Your task to perform on an android device: When is my next appointment? Image 0: 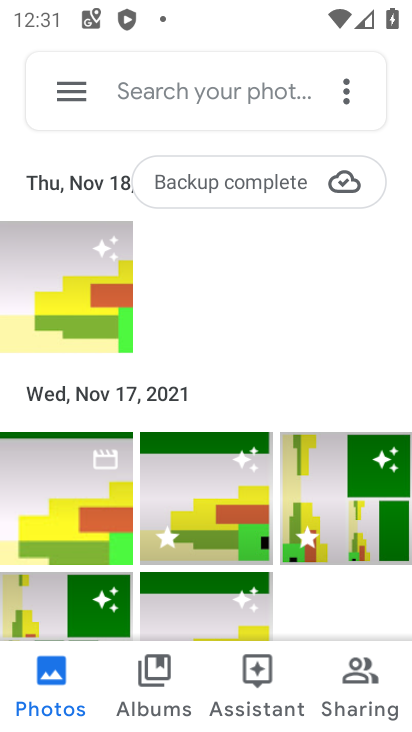
Step 0: press home button
Your task to perform on an android device: When is my next appointment? Image 1: 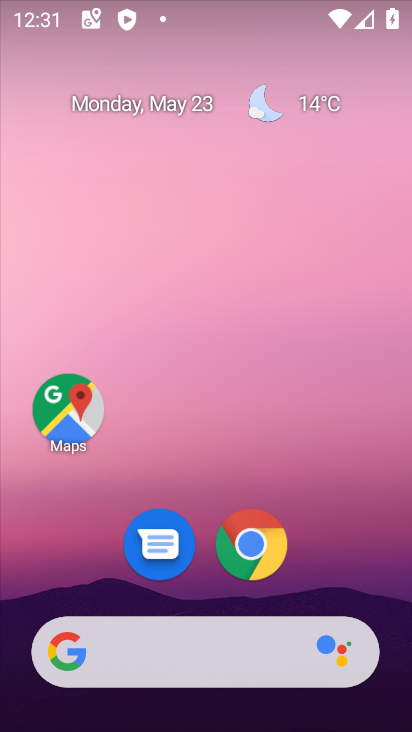
Step 1: drag from (309, 555) to (291, 110)
Your task to perform on an android device: When is my next appointment? Image 2: 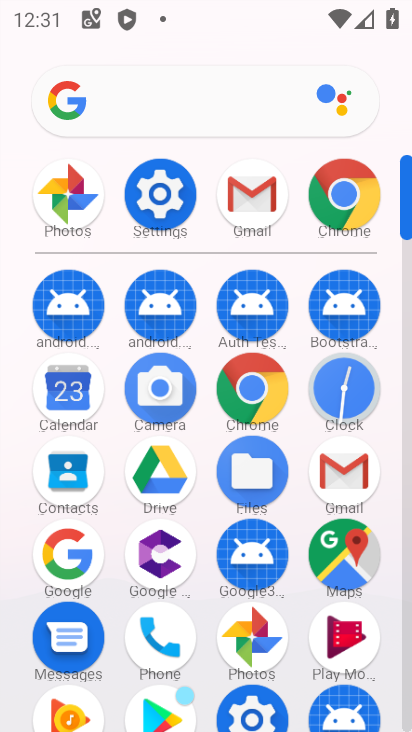
Step 2: click (62, 405)
Your task to perform on an android device: When is my next appointment? Image 3: 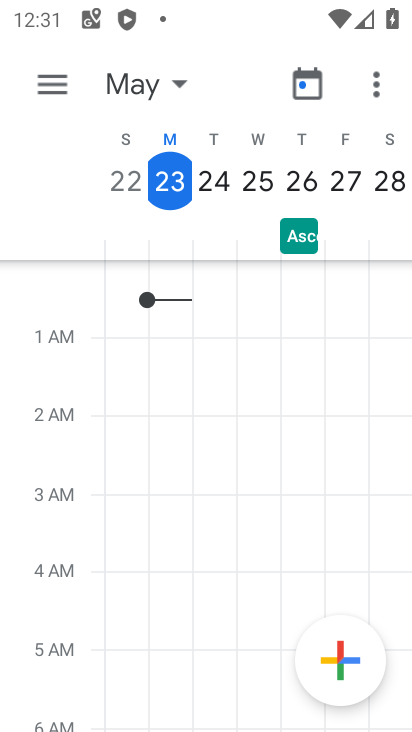
Step 3: click (167, 179)
Your task to perform on an android device: When is my next appointment? Image 4: 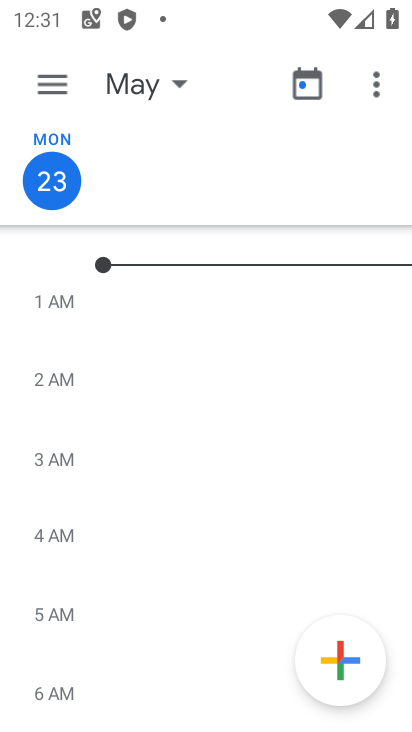
Step 4: task complete